Your task to perform on an android device: stop showing notifications on the lock screen Image 0: 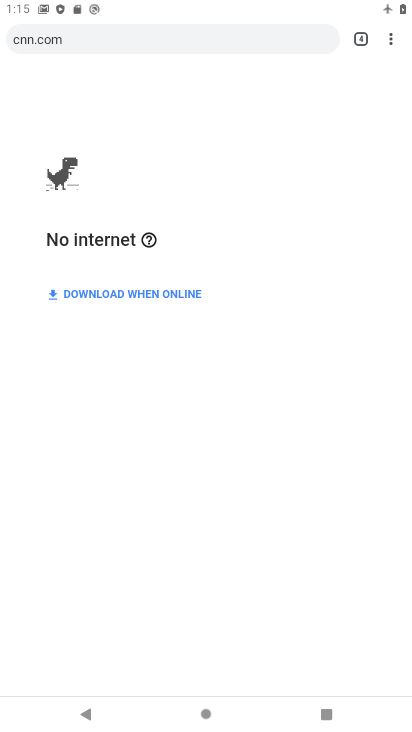
Step 0: press home button
Your task to perform on an android device: stop showing notifications on the lock screen Image 1: 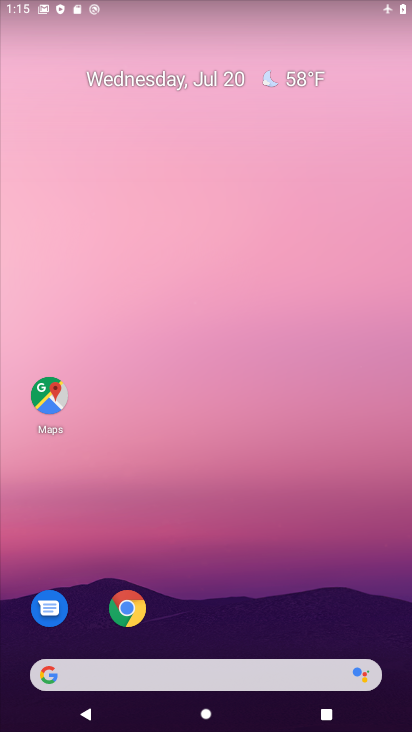
Step 1: drag from (246, 726) to (255, 175)
Your task to perform on an android device: stop showing notifications on the lock screen Image 2: 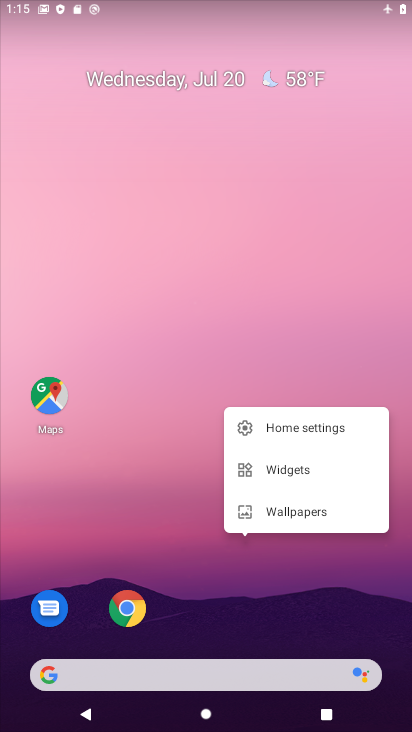
Step 2: click (225, 340)
Your task to perform on an android device: stop showing notifications on the lock screen Image 3: 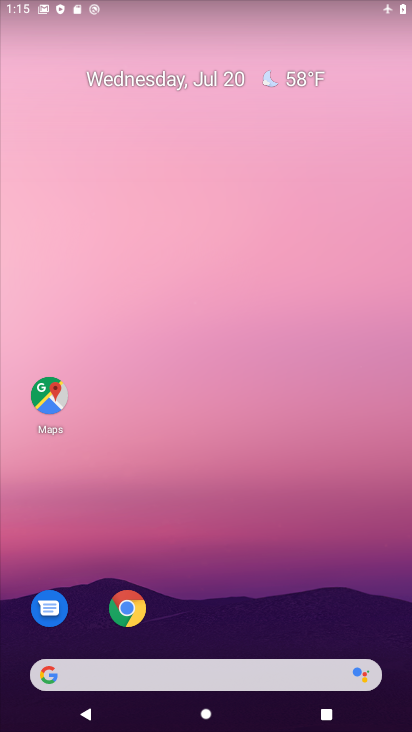
Step 3: drag from (252, 724) to (252, 497)
Your task to perform on an android device: stop showing notifications on the lock screen Image 4: 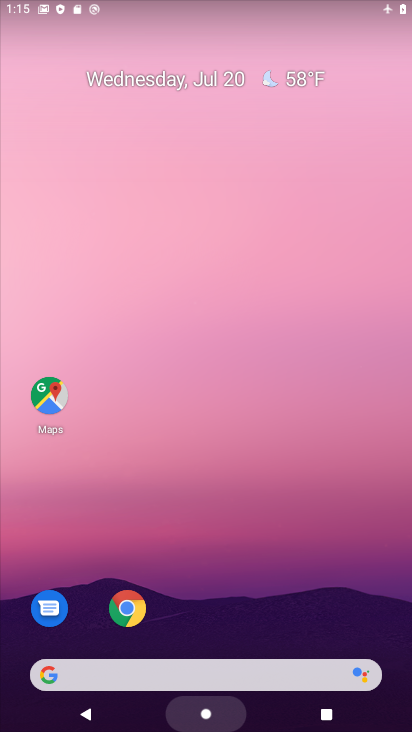
Step 4: click (252, 28)
Your task to perform on an android device: stop showing notifications on the lock screen Image 5: 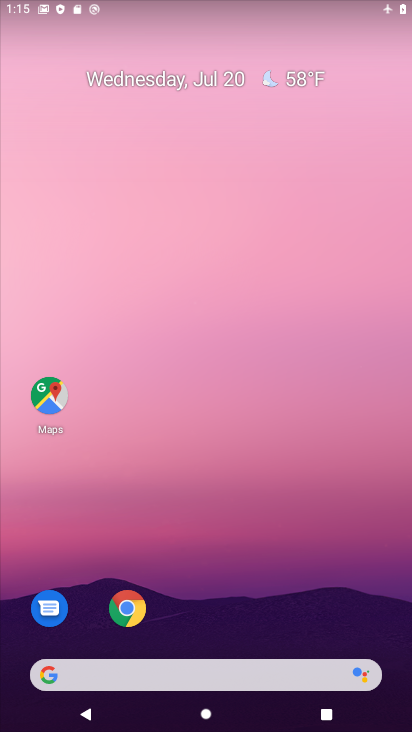
Step 5: drag from (239, 712) to (217, 16)
Your task to perform on an android device: stop showing notifications on the lock screen Image 6: 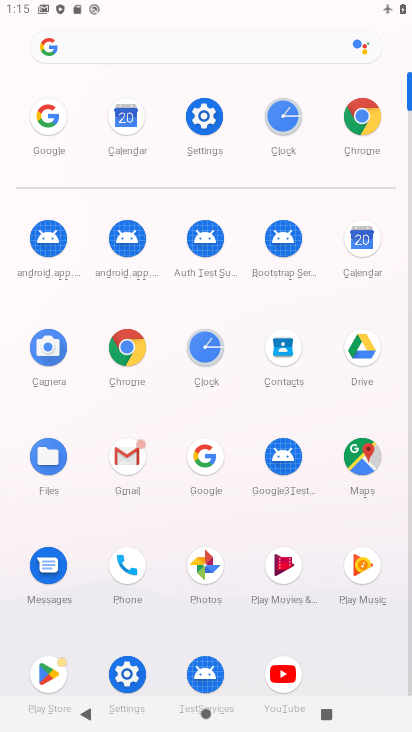
Step 6: click (194, 114)
Your task to perform on an android device: stop showing notifications on the lock screen Image 7: 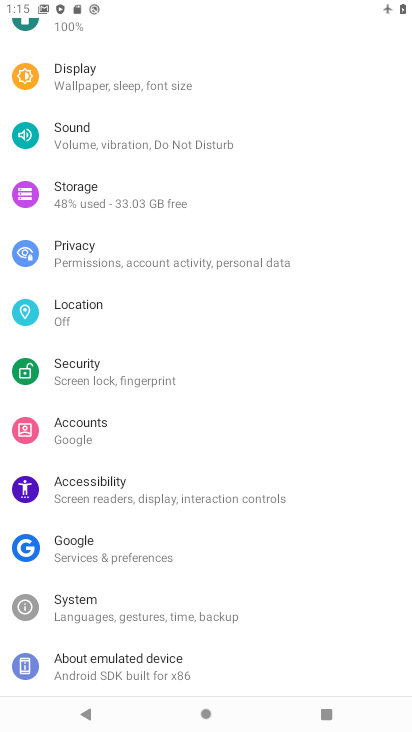
Step 7: drag from (101, 112) to (107, 609)
Your task to perform on an android device: stop showing notifications on the lock screen Image 8: 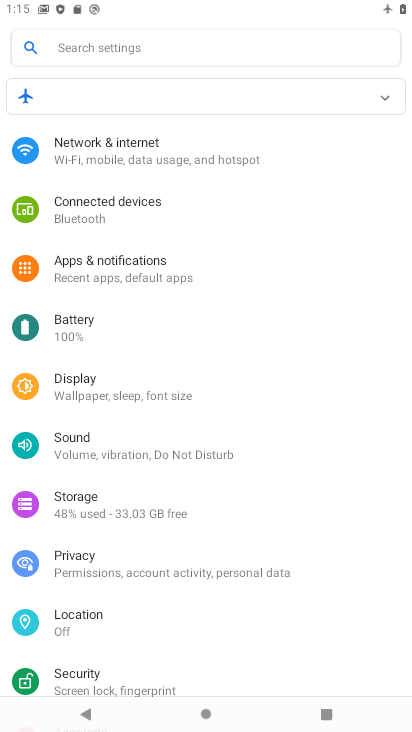
Step 8: click (107, 269)
Your task to perform on an android device: stop showing notifications on the lock screen Image 9: 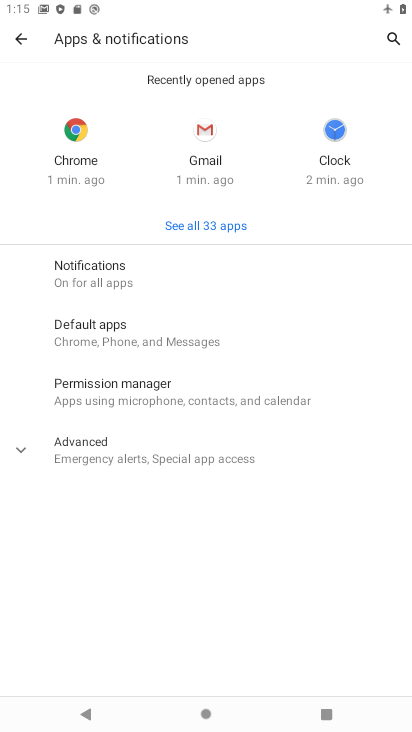
Step 9: click (102, 269)
Your task to perform on an android device: stop showing notifications on the lock screen Image 10: 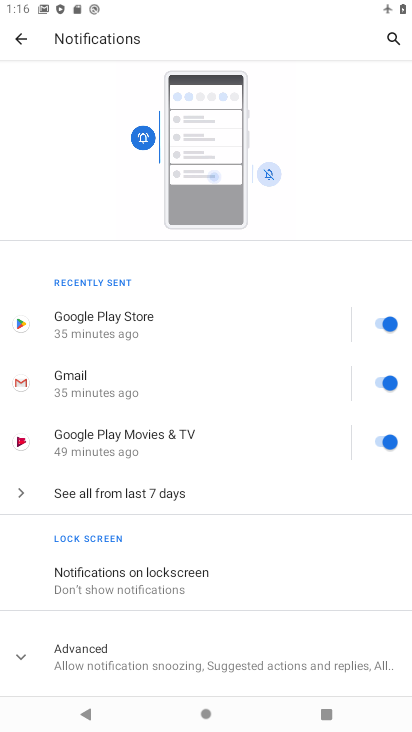
Step 10: task complete